Your task to perform on an android device: Open the calendar app, open the side menu, and click the "Day" option Image 0: 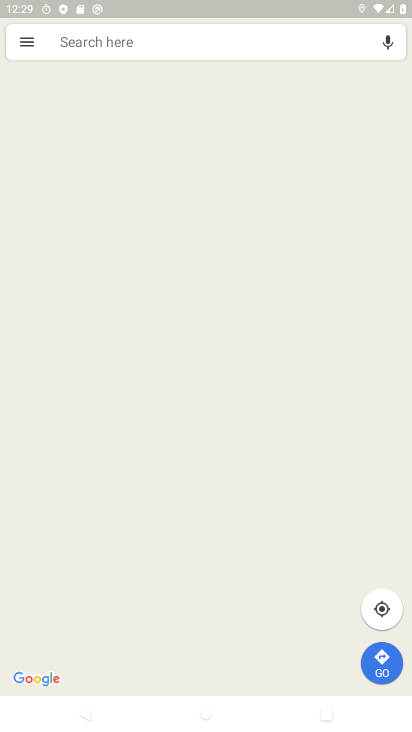
Step 0: drag from (349, 595) to (318, 325)
Your task to perform on an android device: Open the calendar app, open the side menu, and click the "Day" option Image 1: 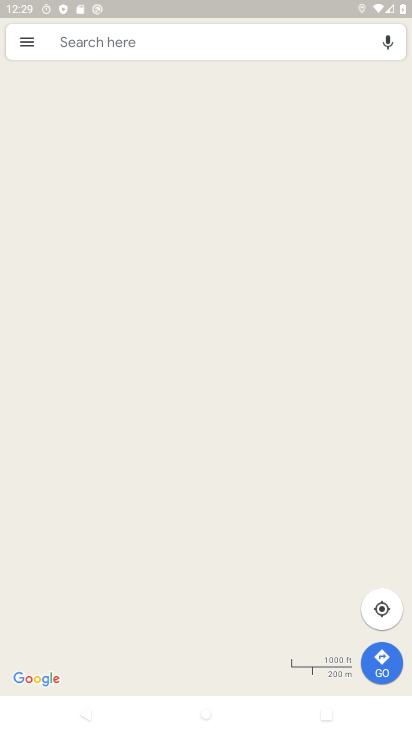
Step 1: press home button
Your task to perform on an android device: Open the calendar app, open the side menu, and click the "Day" option Image 2: 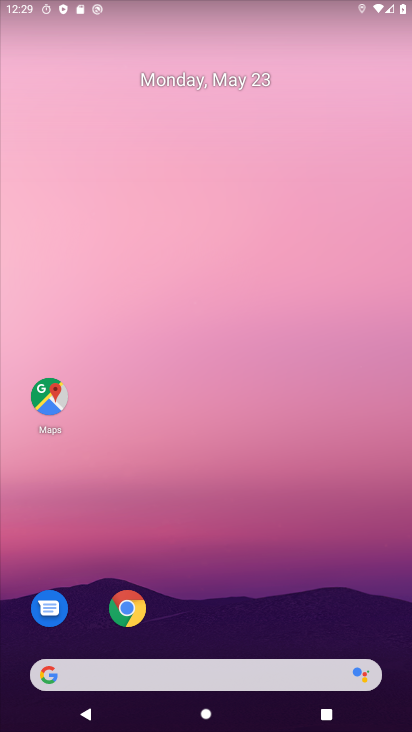
Step 2: drag from (321, 519) to (315, 159)
Your task to perform on an android device: Open the calendar app, open the side menu, and click the "Day" option Image 3: 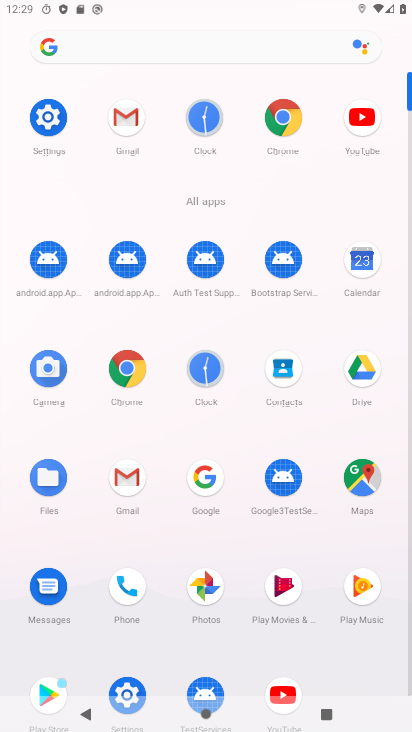
Step 3: click (358, 267)
Your task to perform on an android device: Open the calendar app, open the side menu, and click the "Day" option Image 4: 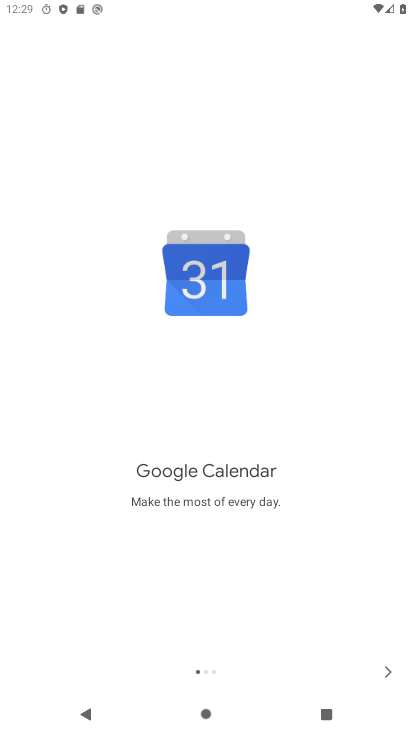
Step 4: click (394, 675)
Your task to perform on an android device: Open the calendar app, open the side menu, and click the "Day" option Image 5: 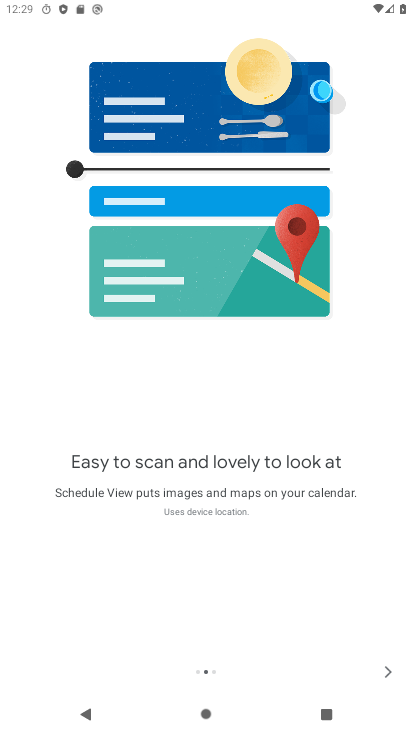
Step 5: click (394, 675)
Your task to perform on an android device: Open the calendar app, open the side menu, and click the "Day" option Image 6: 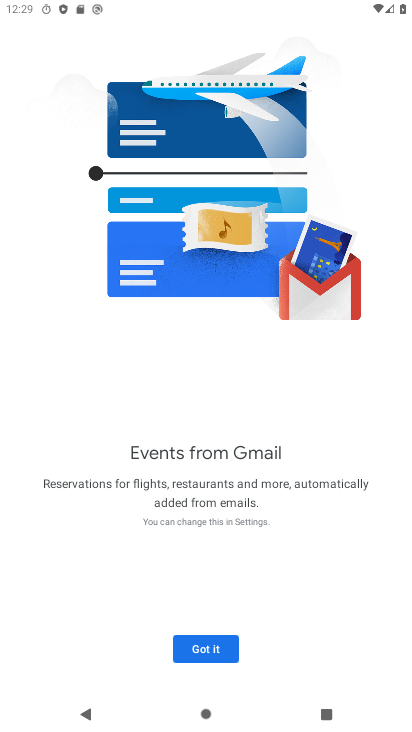
Step 6: click (223, 648)
Your task to perform on an android device: Open the calendar app, open the side menu, and click the "Day" option Image 7: 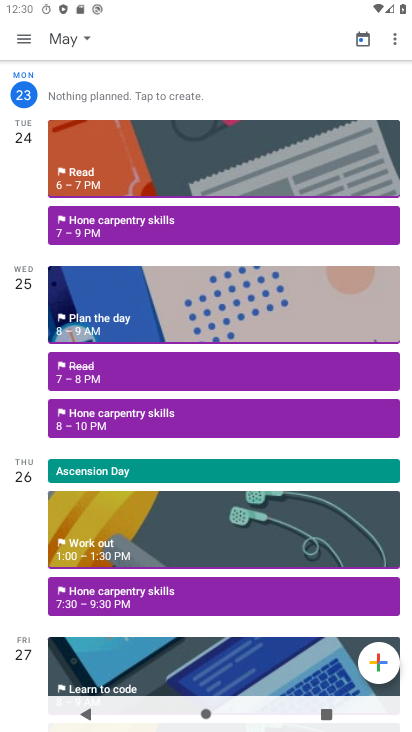
Step 7: click (18, 45)
Your task to perform on an android device: Open the calendar app, open the side menu, and click the "Day" option Image 8: 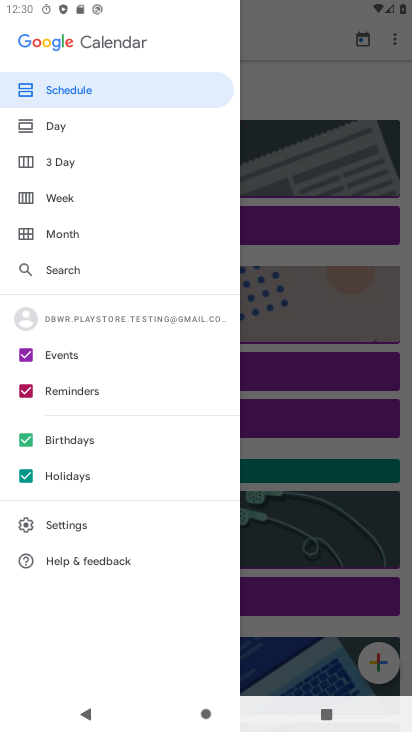
Step 8: click (60, 129)
Your task to perform on an android device: Open the calendar app, open the side menu, and click the "Day" option Image 9: 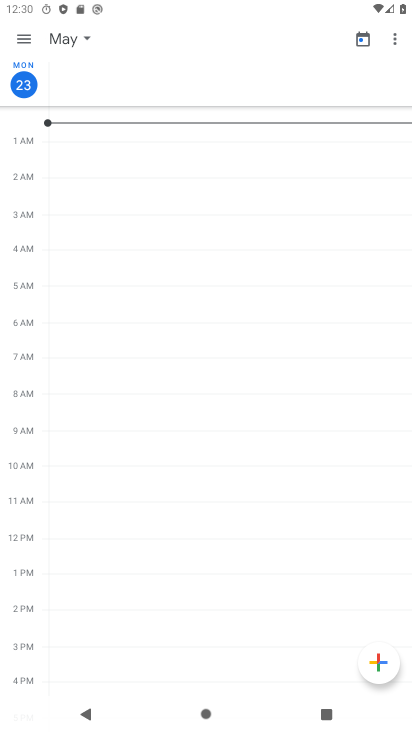
Step 9: task complete